Your task to perform on an android device: Go to calendar. Show me events next week Image 0: 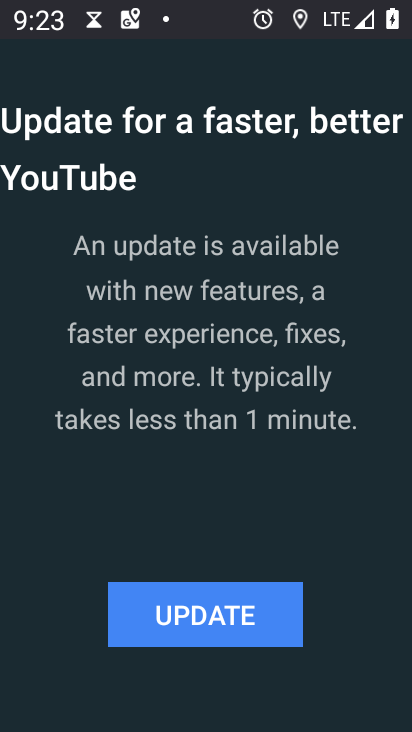
Step 0: press home button
Your task to perform on an android device: Go to calendar. Show me events next week Image 1: 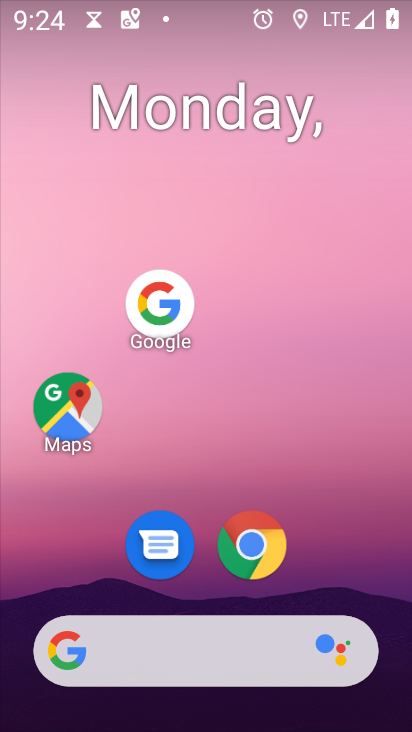
Step 1: drag from (190, 658) to (273, 169)
Your task to perform on an android device: Go to calendar. Show me events next week Image 2: 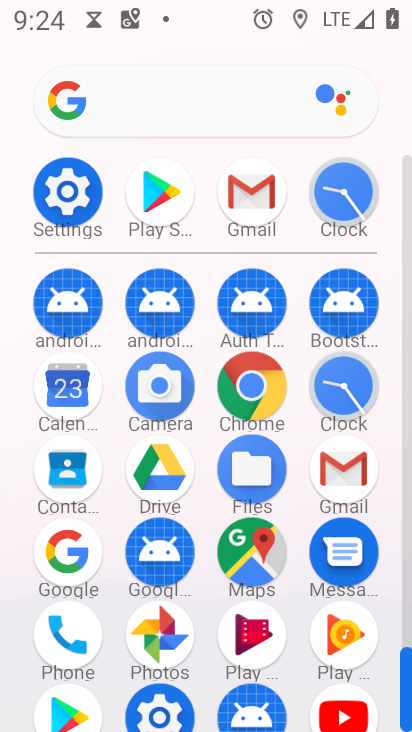
Step 2: click (62, 401)
Your task to perform on an android device: Go to calendar. Show me events next week Image 3: 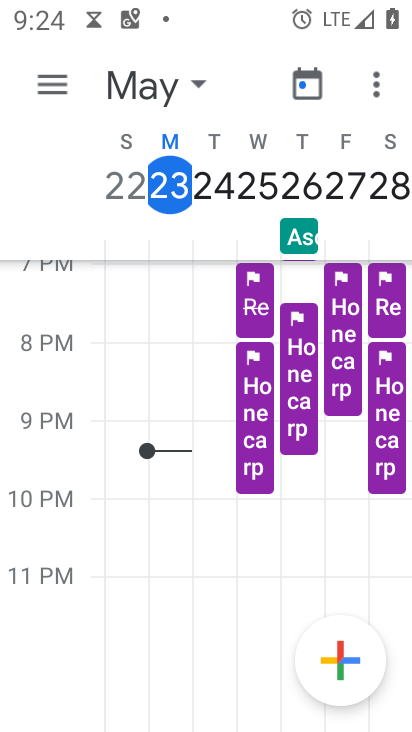
Step 3: click (151, 89)
Your task to perform on an android device: Go to calendar. Show me events next week Image 4: 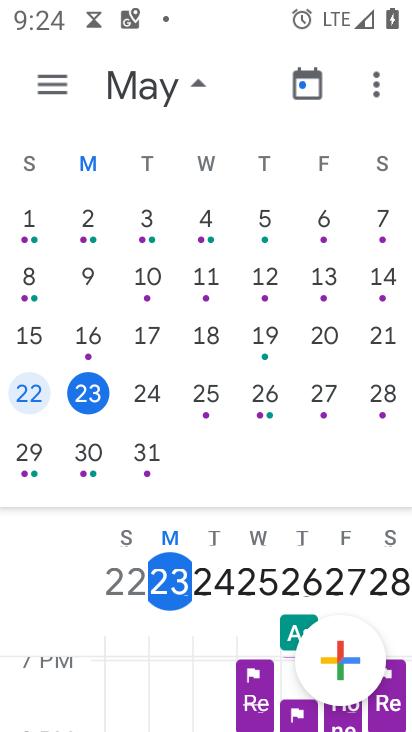
Step 4: click (37, 455)
Your task to perform on an android device: Go to calendar. Show me events next week Image 5: 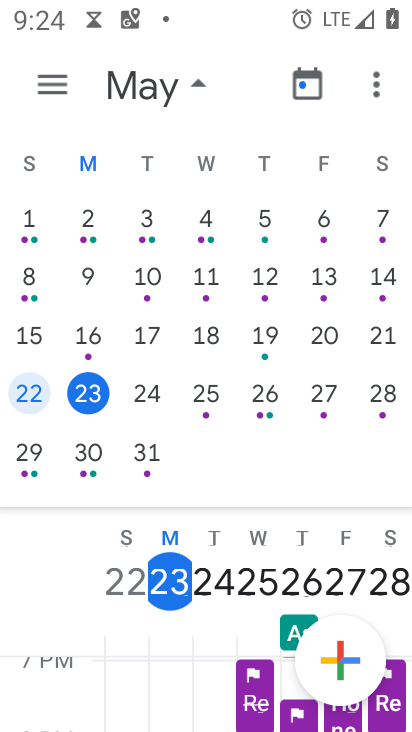
Step 5: click (33, 460)
Your task to perform on an android device: Go to calendar. Show me events next week Image 6: 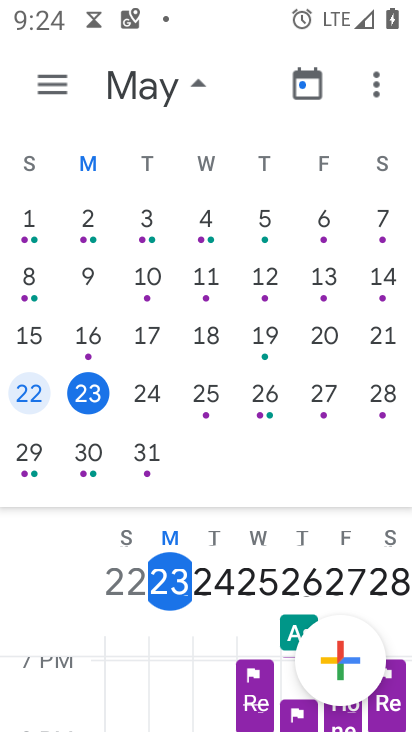
Step 6: click (41, 451)
Your task to perform on an android device: Go to calendar. Show me events next week Image 7: 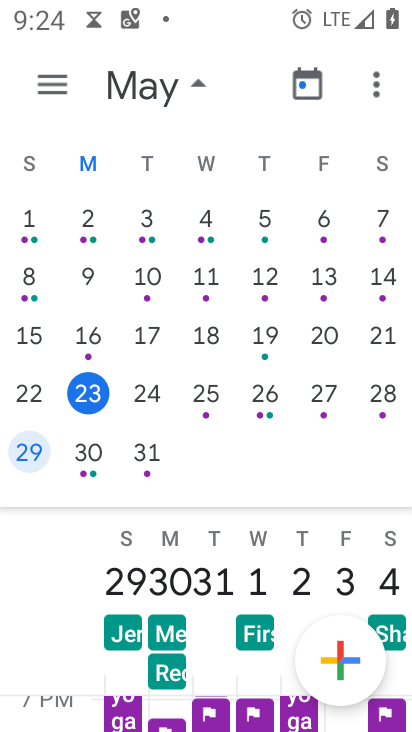
Step 7: click (49, 77)
Your task to perform on an android device: Go to calendar. Show me events next week Image 8: 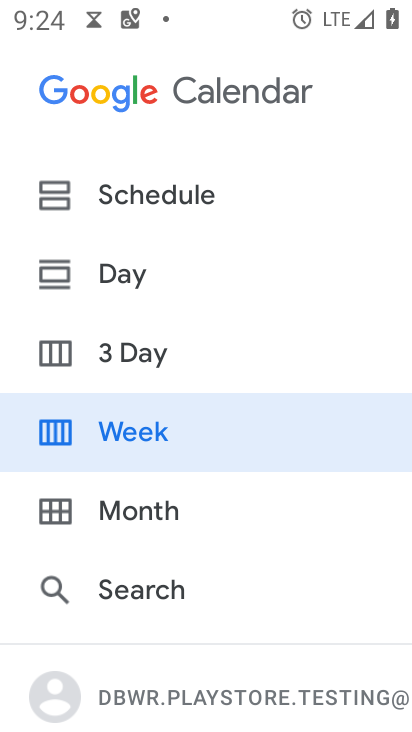
Step 8: click (117, 443)
Your task to perform on an android device: Go to calendar. Show me events next week Image 9: 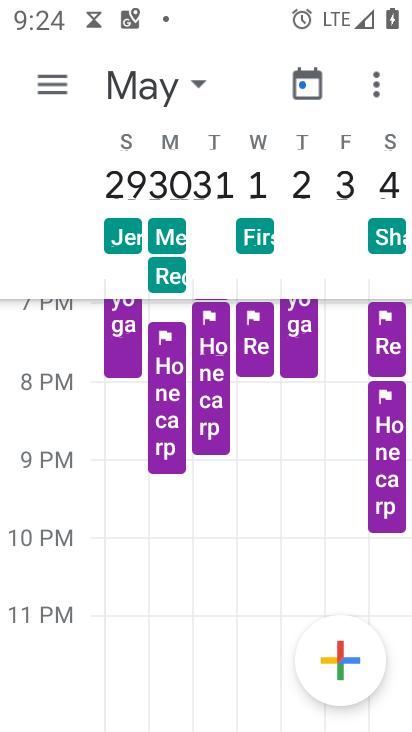
Step 9: click (51, 75)
Your task to perform on an android device: Go to calendar. Show me events next week Image 10: 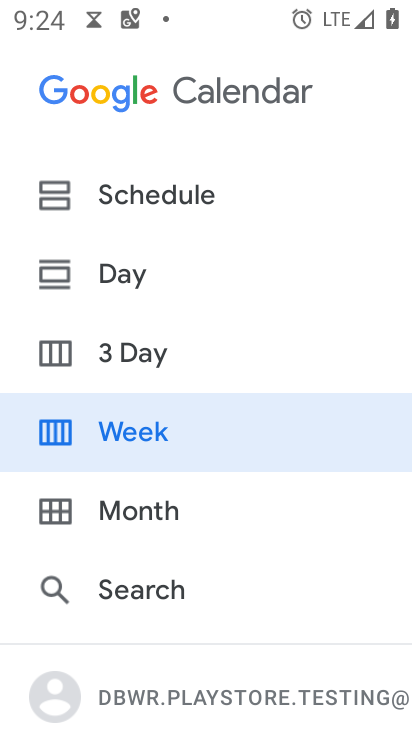
Step 10: click (174, 181)
Your task to perform on an android device: Go to calendar. Show me events next week Image 11: 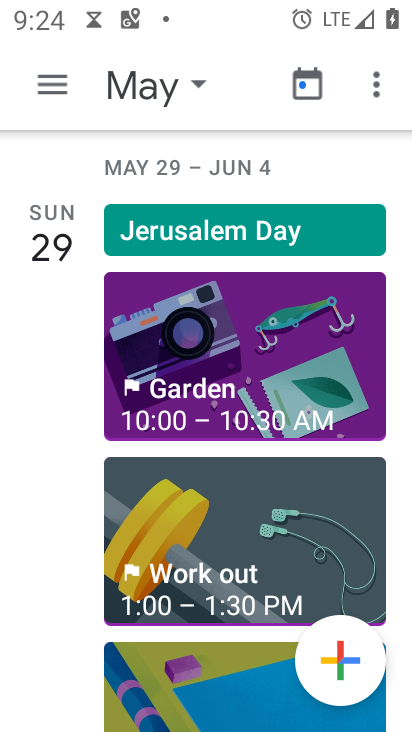
Step 11: click (231, 368)
Your task to perform on an android device: Go to calendar. Show me events next week Image 12: 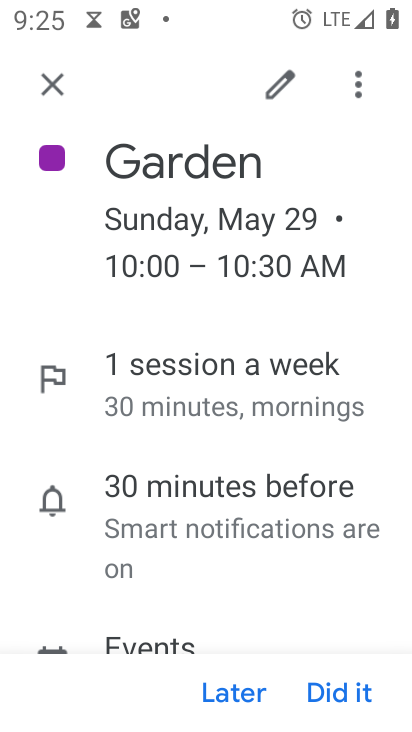
Step 12: task complete